Your task to perform on an android device: check google app version Image 0: 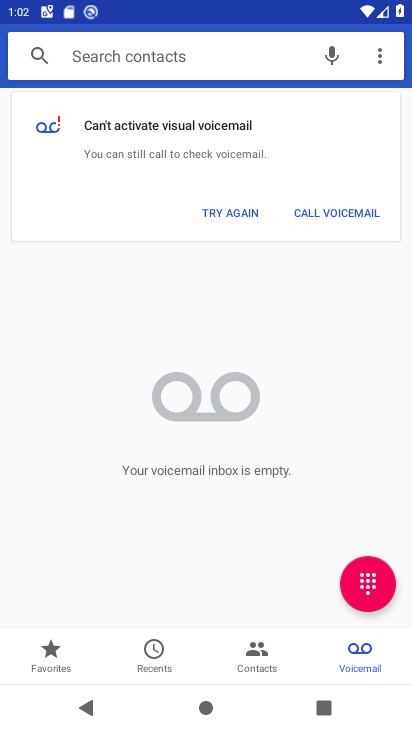
Step 0: press home button
Your task to perform on an android device: check google app version Image 1: 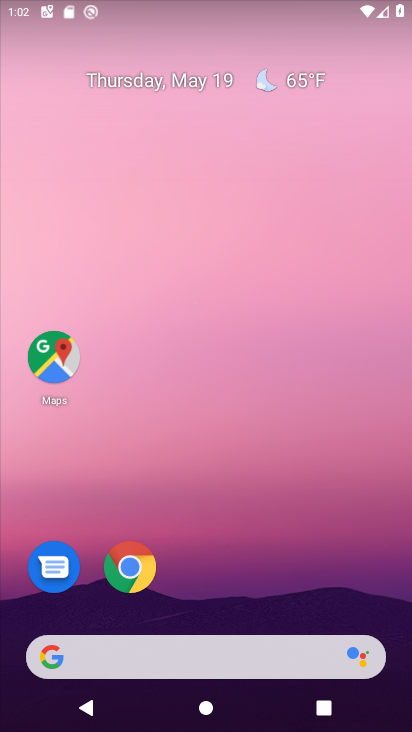
Step 1: drag from (275, 575) to (258, 14)
Your task to perform on an android device: check google app version Image 2: 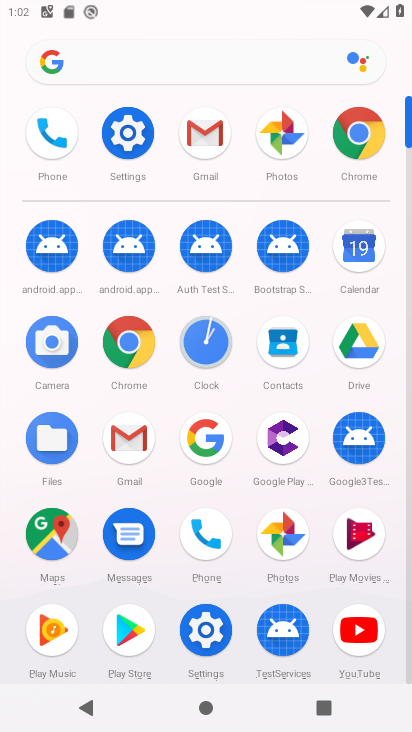
Step 2: click (216, 434)
Your task to perform on an android device: check google app version Image 3: 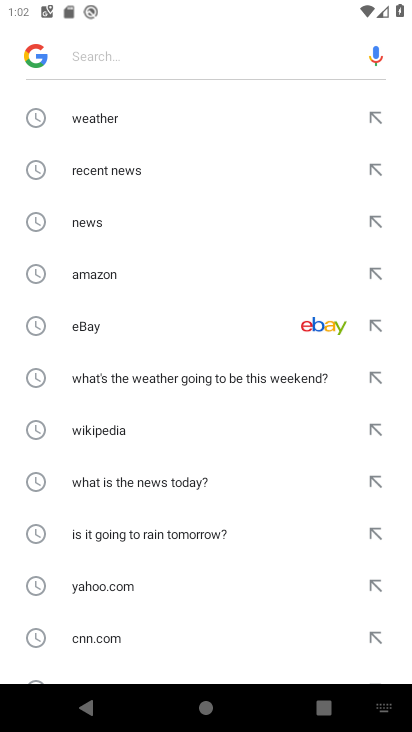
Step 3: click (16, 43)
Your task to perform on an android device: check google app version Image 4: 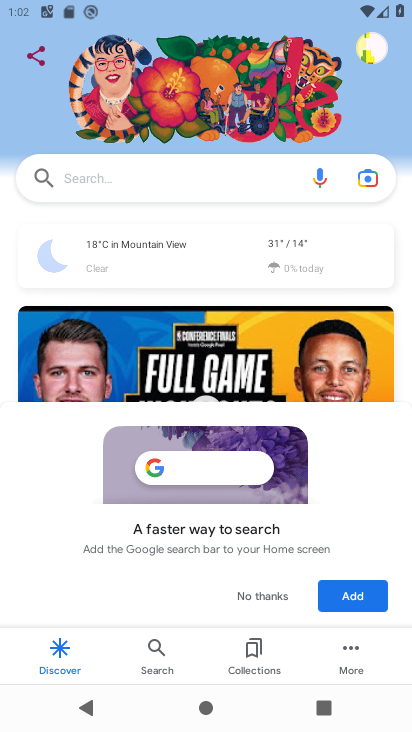
Step 4: click (344, 660)
Your task to perform on an android device: check google app version Image 5: 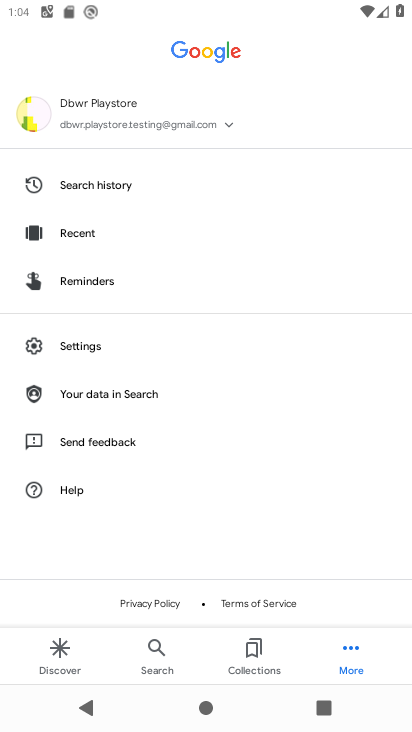
Step 5: click (66, 349)
Your task to perform on an android device: check google app version Image 6: 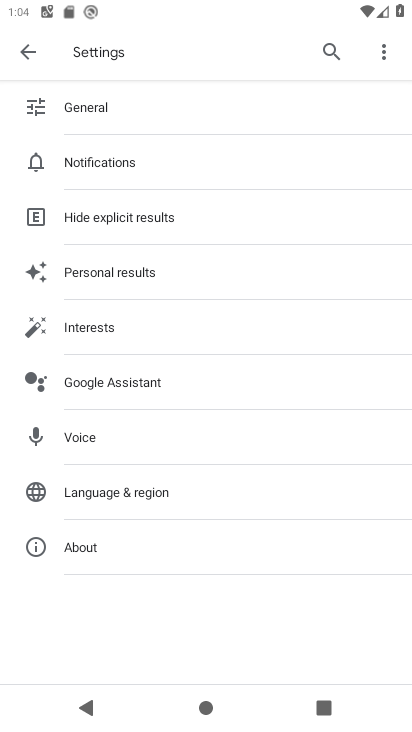
Step 6: click (150, 540)
Your task to perform on an android device: check google app version Image 7: 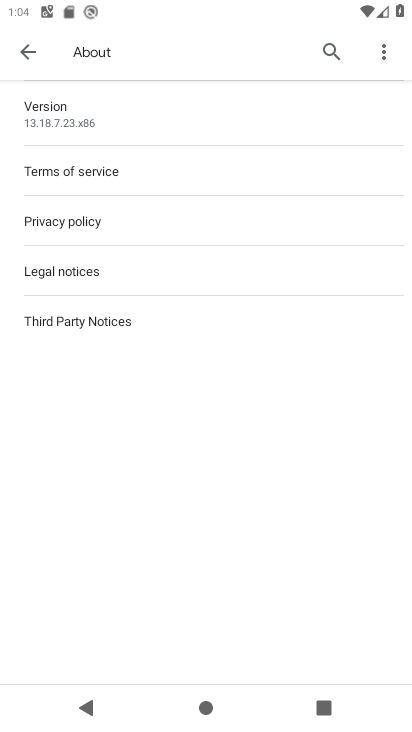
Step 7: click (114, 111)
Your task to perform on an android device: check google app version Image 8: 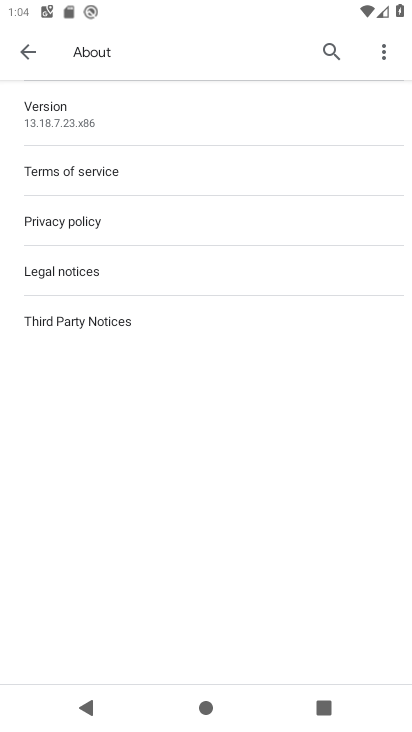
Step 8: task complete